Your task to perform on an android device: What is the recent news? Image 0: 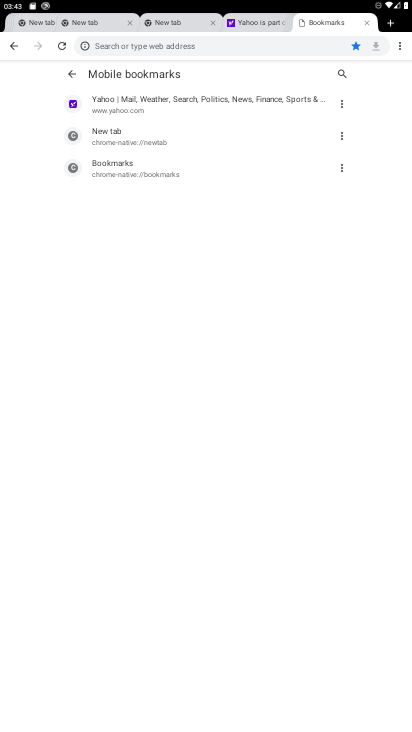
Step 0: click (391, 22)
Your task to perform on an android device: What is the recent news? Image 1: 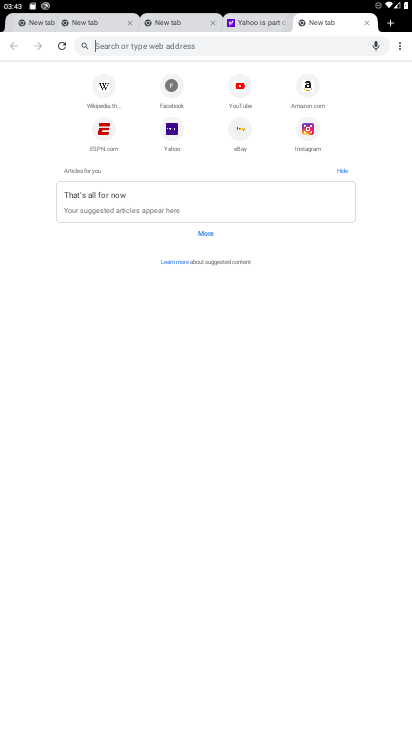
Step 1: click (215, 38)
Your task to perform on an android device: What is the recent news? Image 2: 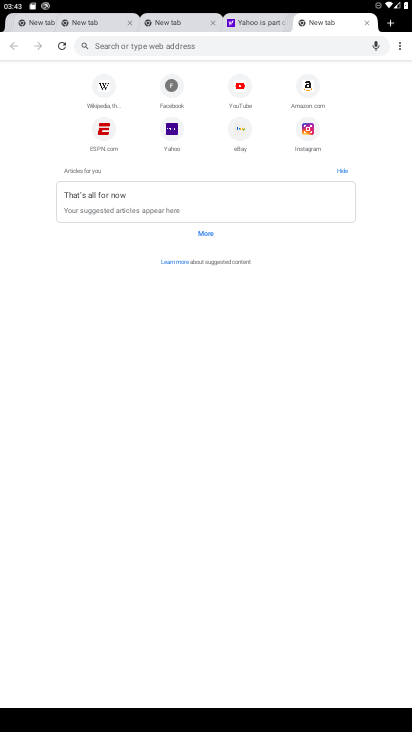
Step 2: type "What is the recent news "
Your task to perform on an android device: What is the recent news? Image 3: 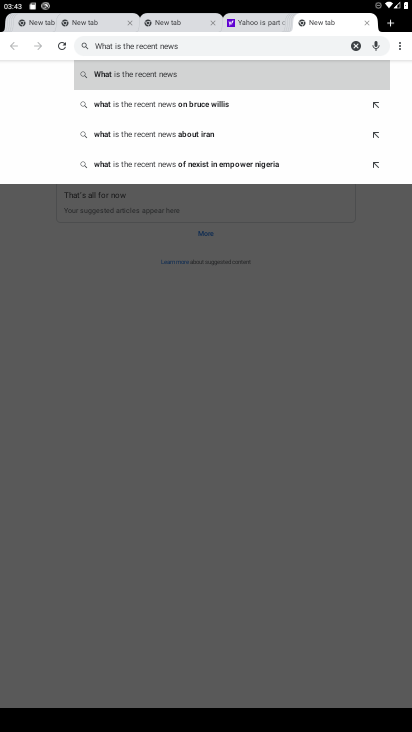
Step 3: click (283, 74)
Your task to perform on an android device: What is the recent news? Image 4: 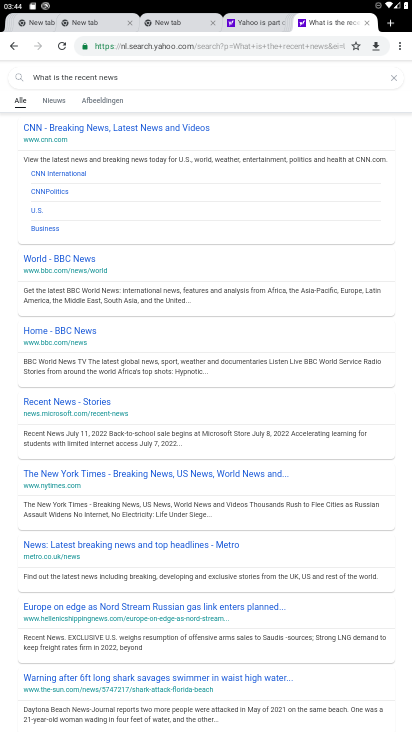
Step 4: task complete